Your task to perform on an android device: toggle notifications settings in the gmail app Image 0: 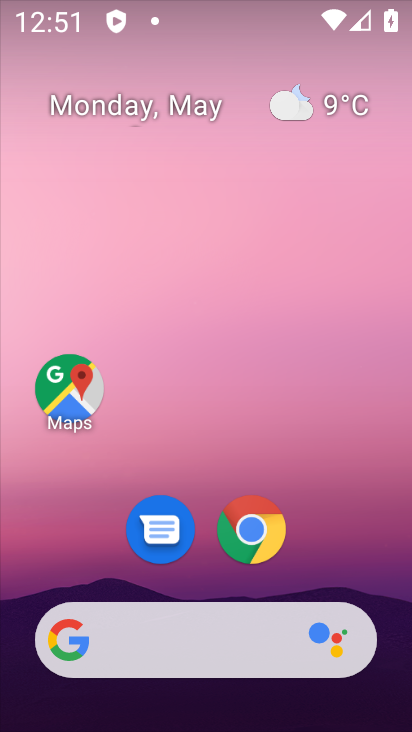
Step 0: drag from (331, 547) to (313, 221)
Your task to perform on an android device: toggle notifications settings in the gmail app Image 1: 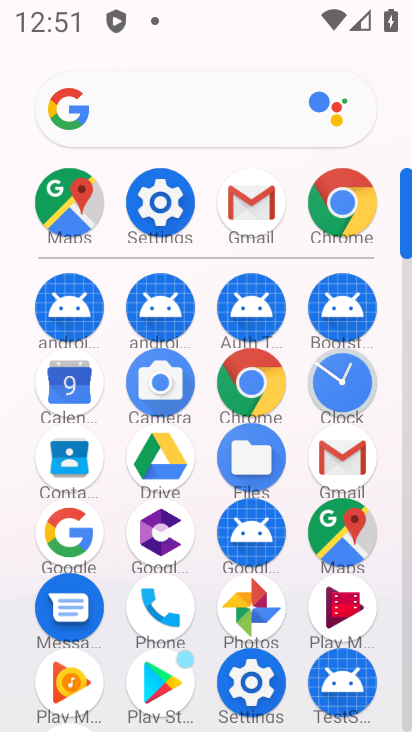
Step 1: click (245, 200)
Your task to perform on an android device: toggle notifications settings in the gmail app Image 2: 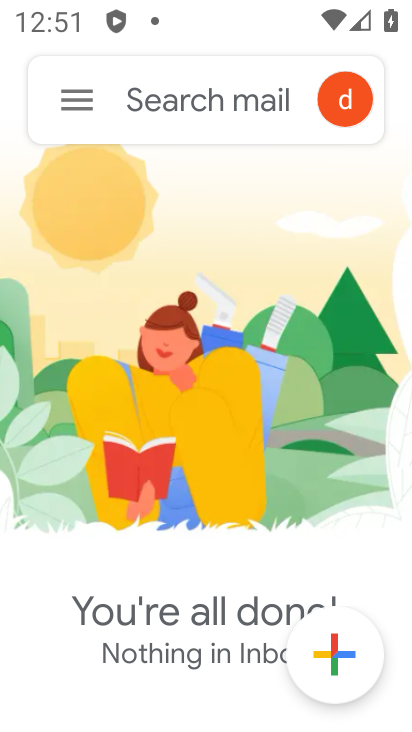
Step 2: click (76, 97)
Your task to perform on an android device: toggle notifications settings in the gmail app Image 3: 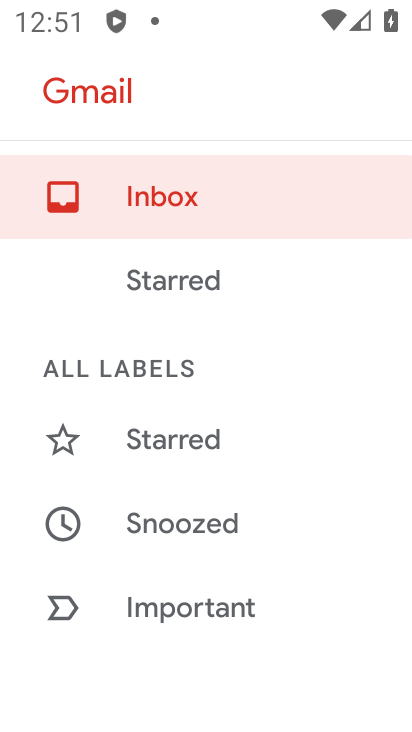
Step 3: drag from (274, 617) to (247, 186)
Your task to perform on an android device: toggle notifications settings in the gmail app Image 4: 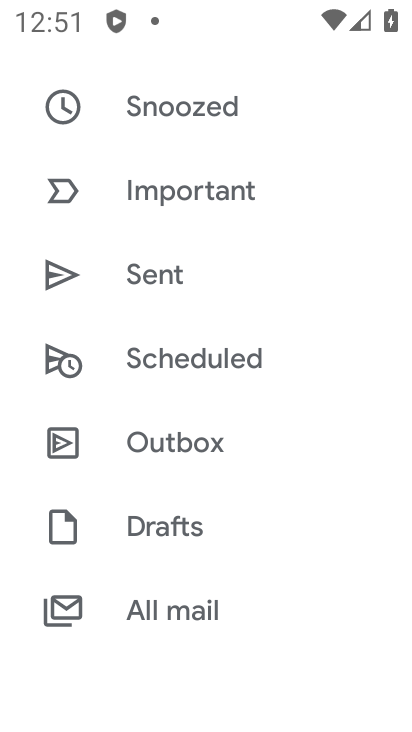
Step 4: drag from (231, 614) to (269, 271)
Your task to perform on an android device: toggle notifications settings in the gmail app Image 5: 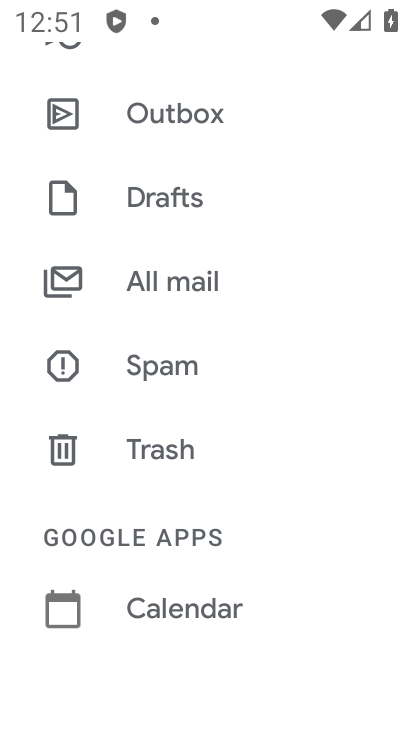
Step 5: drag from (195, 563) to (235, 255)
Your task to perform on an android device: toggle notifications settings in the gmail app Image 6: 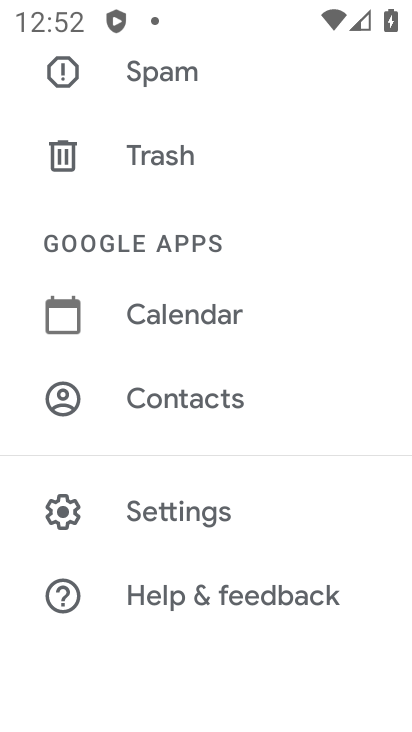
Step 6: click (186, 512)
Your task to perform on an android device: toggle notifications settings in the gmail app Image 7: 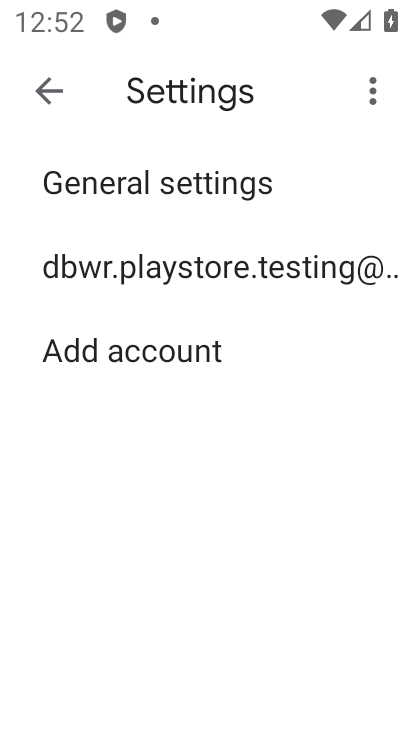
Step 7: click (152, 275)
Your task to perform on an android device: toggle notifications settings in the gmail app Image 8: 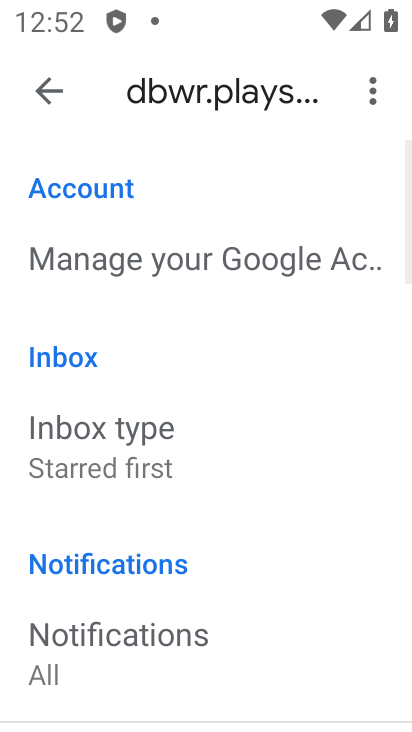
Step 8: click (148, 678)
Your task to perform on an android device: toggle notifications settings in the gmail app Image 9: 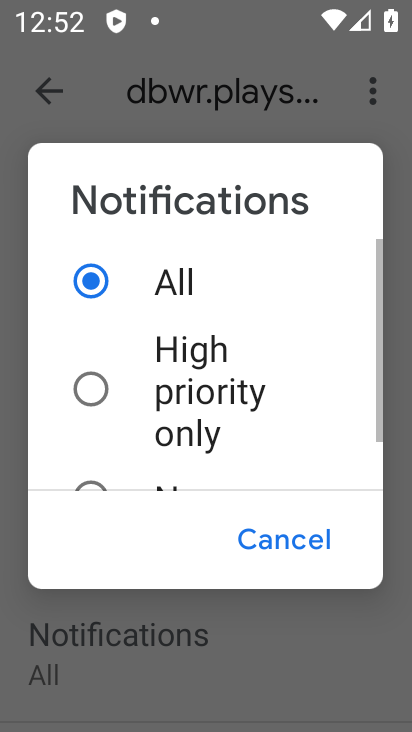
Step 9: drag from (141, 366) to (151, 219)
Your task to perform on an android device: toggle notifications settings in the gmail app Image 10: 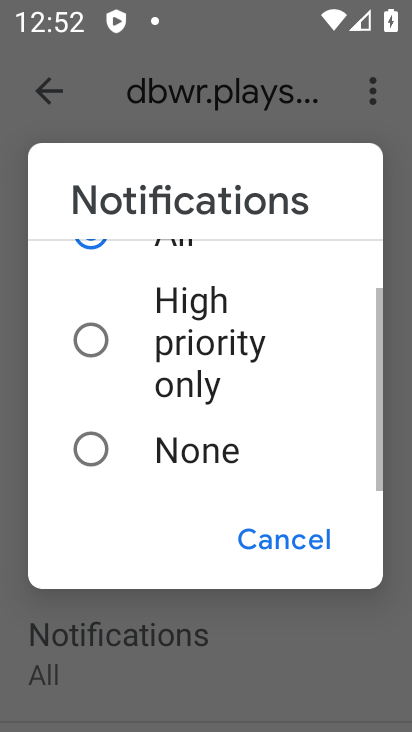
Step 10: click (118, 433)
Your task to perform on an android device: toggle notifications settings in the gmail app Image 11: 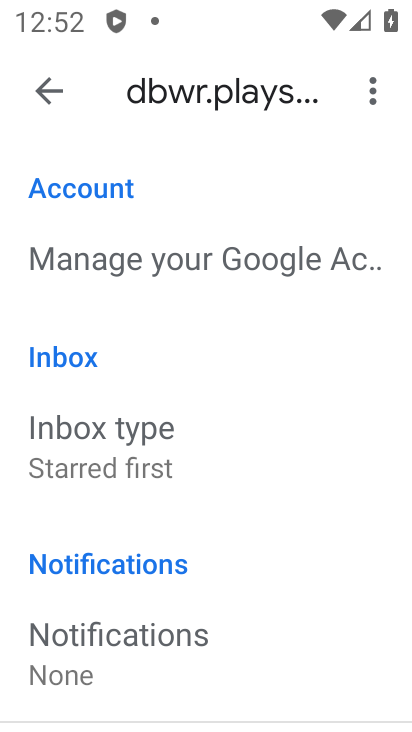
Step 11: task complete